Your task to perform on an android device: Go to CNN.com Image 0: 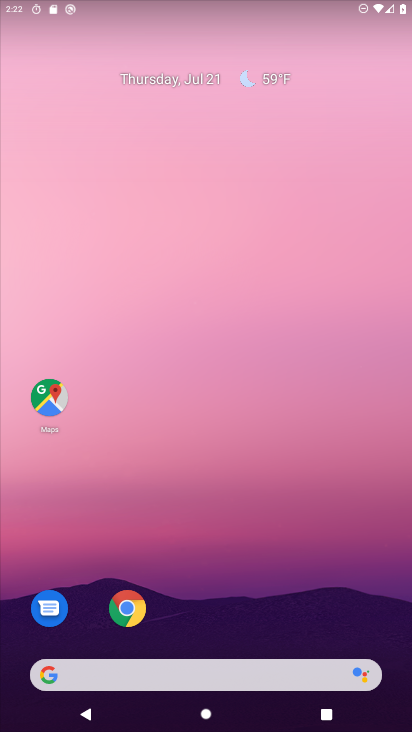
Step 0: click (118, 600)
Your task to perform on an android device: Go to CNN.com Image 1: 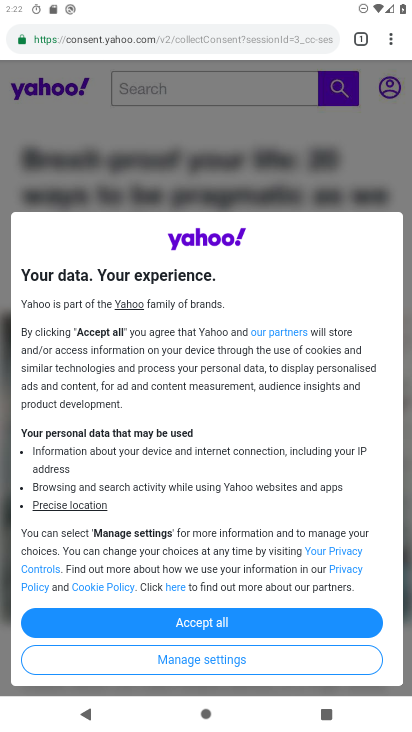
Step 1: click (184, 44)
Your task to perform on an android device: Go to CNN.com Image 2: 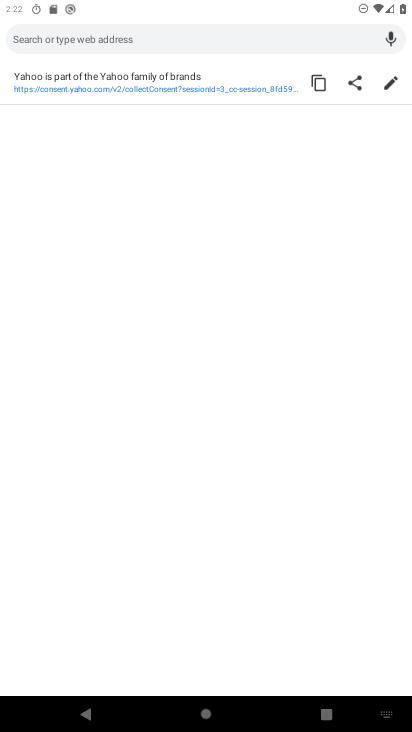
Step 2: type "CNN.com"
Your task to perform on an android device: Go to CNN.com Image 3: 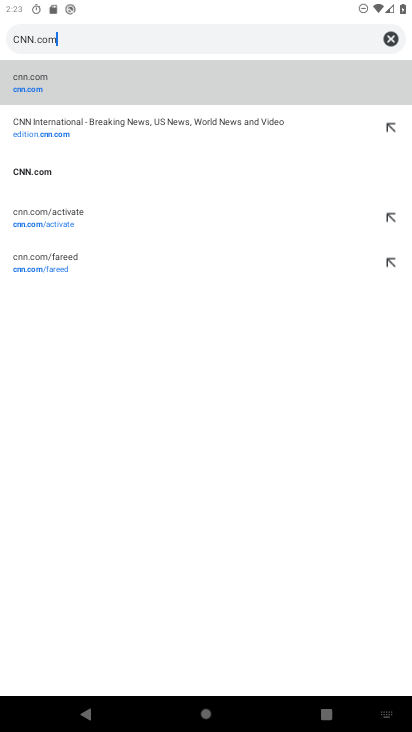
Step 3: click (123, 78)
Your task to perform on an android device: Go to CNN.com Image 4: 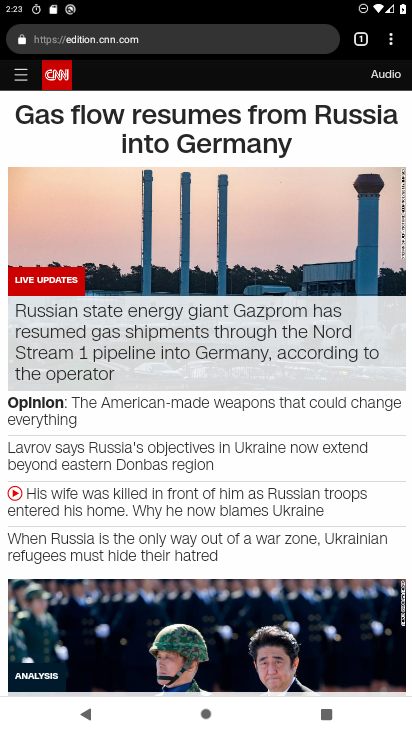
Step 4: task complete